Your task to perform on an android device: open sync settings in chrome Image 0: 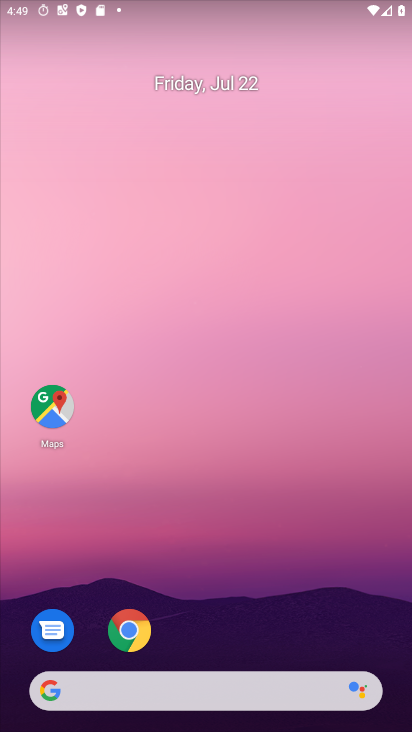
Step 0: drag from (260, 680) to (225, 23)
Your task to perform on an android device: open sync settings in chrome Image 1: 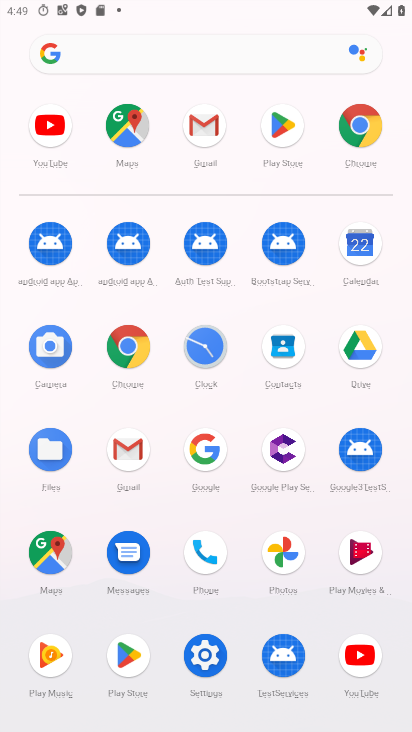
Step 1: click (128, 337)
Your task to perform on an android device: open sync settings in chrome Image 2: 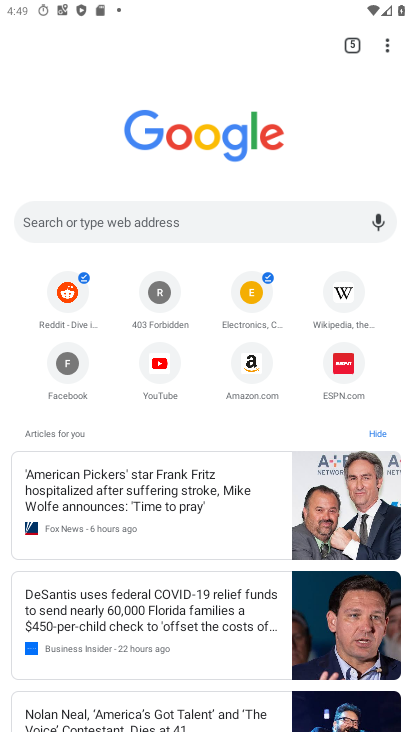
Step 2: drag from (389, 40) to (230, 381)
Your task to perform on an android device: open sync settings in chrome Image 3: 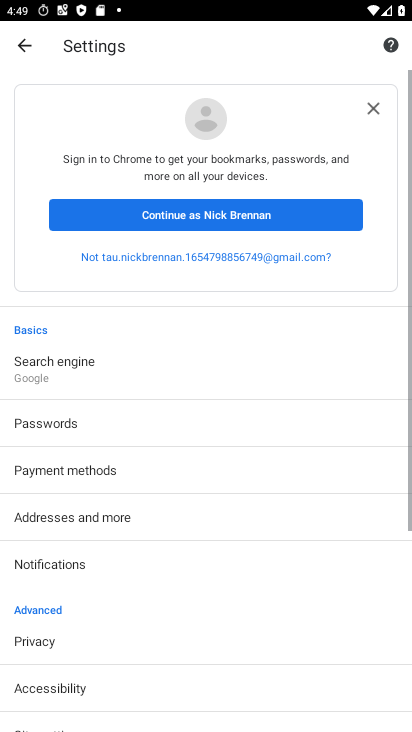
Step 3: drag from (72, 655) to (134, 306)
Your task to perform on an android device: open sync settings in chrome Image 4: 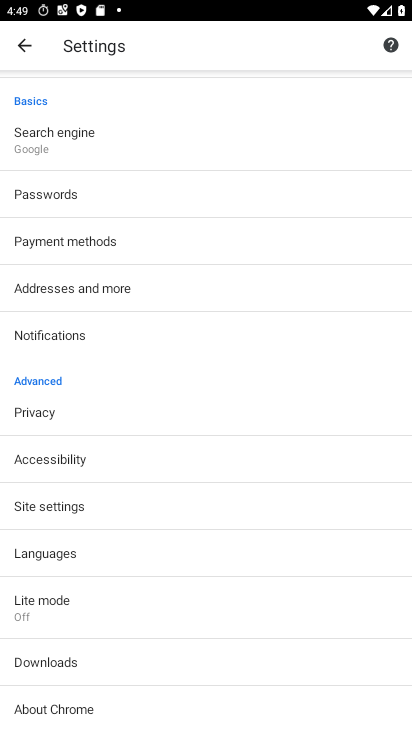
Step 4: click (55, 510)
Your task to perform on an android device: open sync settings in chrome Image 5: 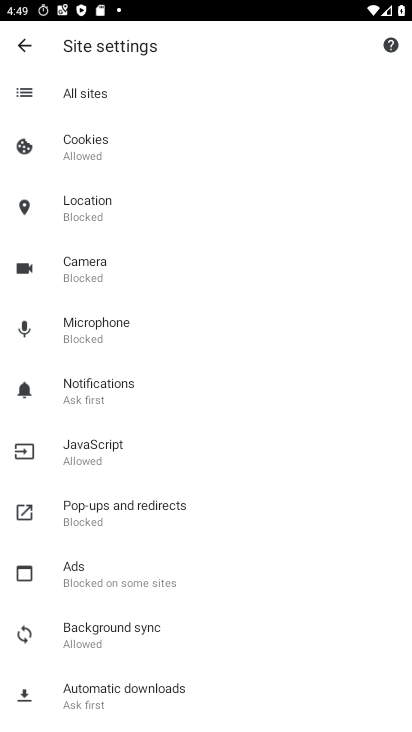
Step 5: click (124, 639)
Your task to perform on an android device: open sync settings in chrome Image 6: 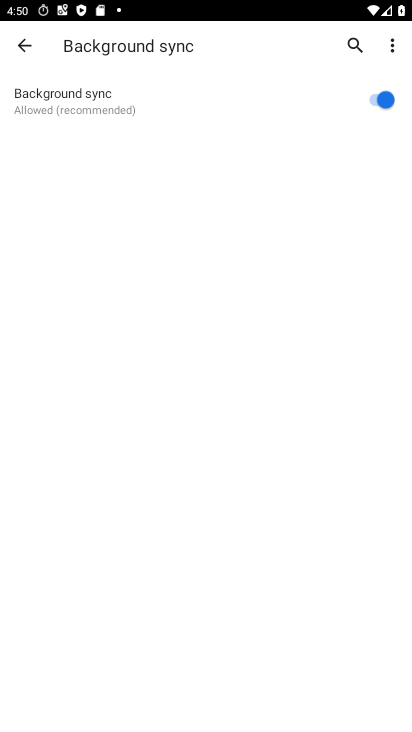
Step 6: task complete